Your task to perform on an android device: open chrome and create a bookmark for the current page Image 0: 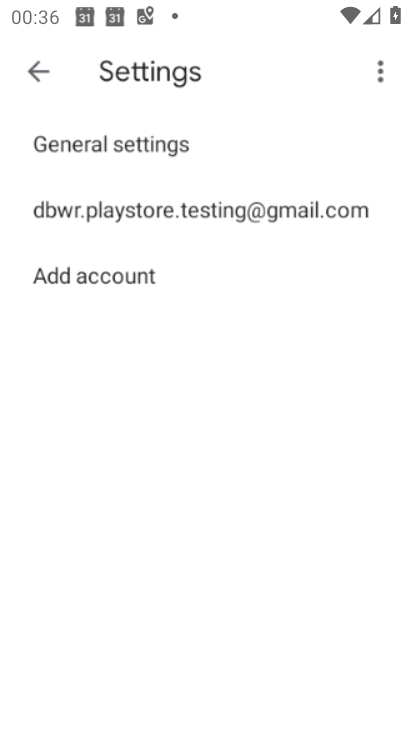
Step 0: press home button
Your task to perform on an android device: open chrome and create a bookmark for the current page Image 1: 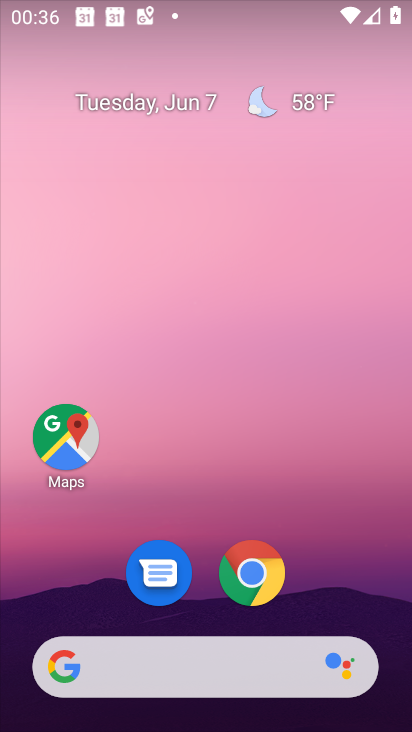
Step 1: click (277, 563)
Your task to perform on an android device: open chrome and create a bookmark for the current page Image 2: 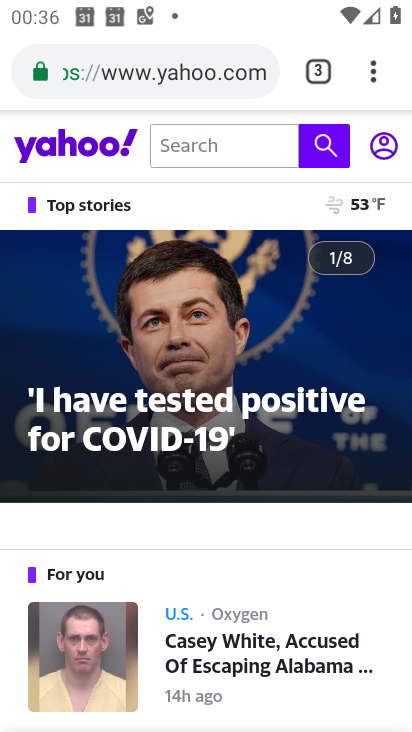
Step 2: task complete